Your task to perform on an android device: turn on the 24-hour format for clock Image 0: 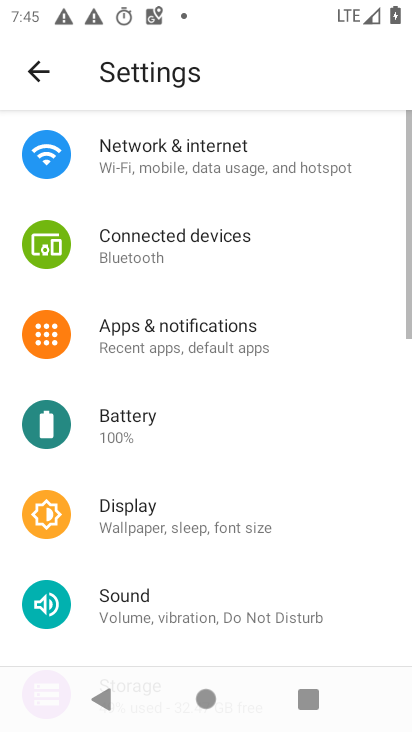
Step 0: press home button
Your task to perform on an android device: turn on the 24-hour format for clock Image 1: 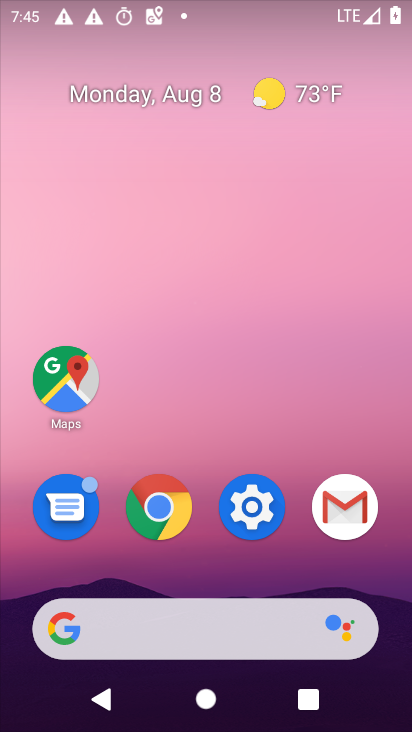
Step 1: drag from (290, 613) to (240, 240)
Your task to perform on an android device: turn on the 24-hour format for clock Image 2: 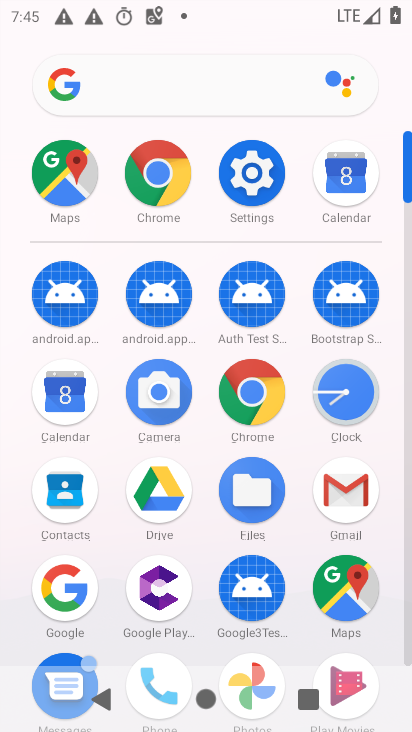
Step 2: click (342, 416)
Your task to perform on an android device: turn on the 24-hour format for clock Image 3: 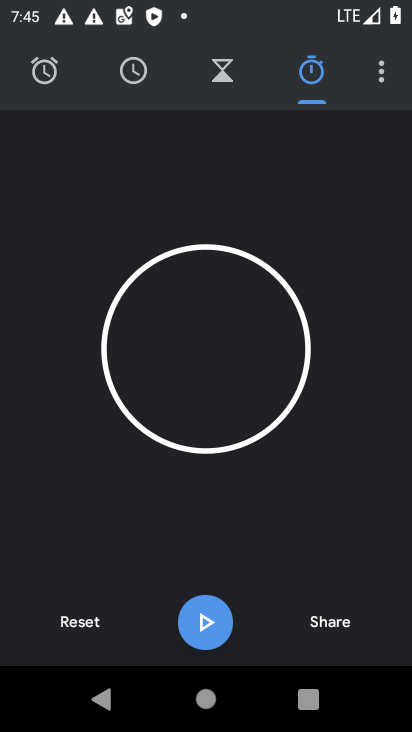
Step 3: click (382, 89)
Your task to perform on an android device: turn on the 24-hour format for clock Image 4: 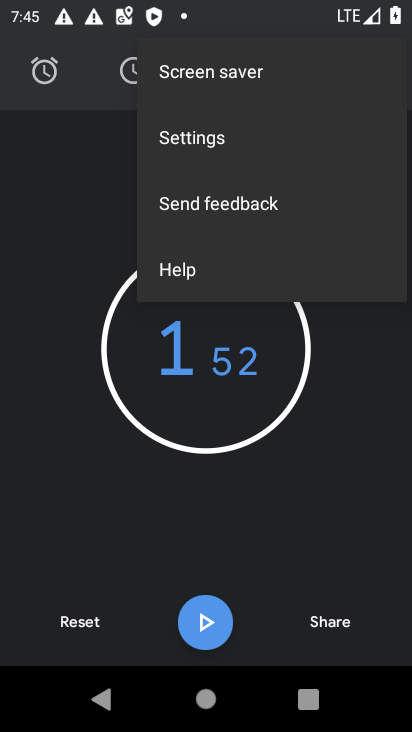
Step 4: click (228, 147)
Your task to perform on an android device: turn on the 24-hour format for clock Image 5: 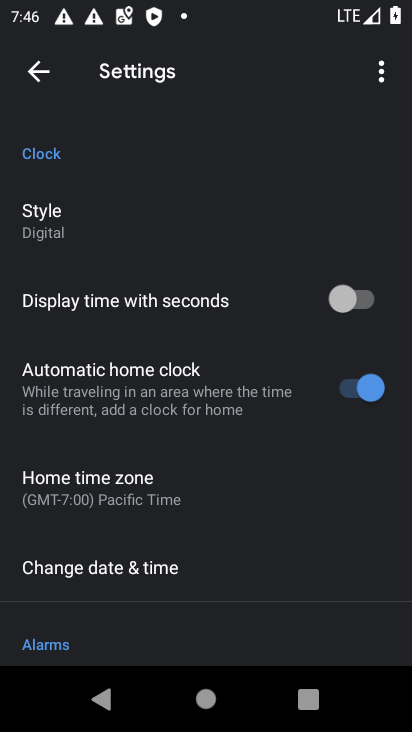
Step 5: click (97, 564)
Your task to perform on an android device: turn on the 24-hour format for clock Image 6: 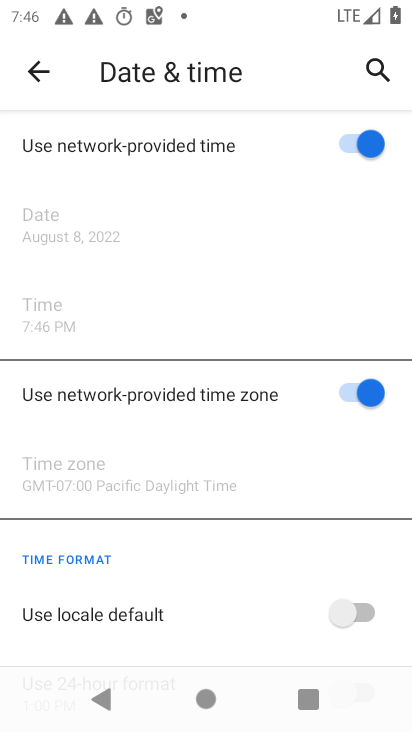
Step 6: drag from (189, 567) to (155, 298)
Your task to perform on an android device: turn on the 24-hour format for clock Image 7: 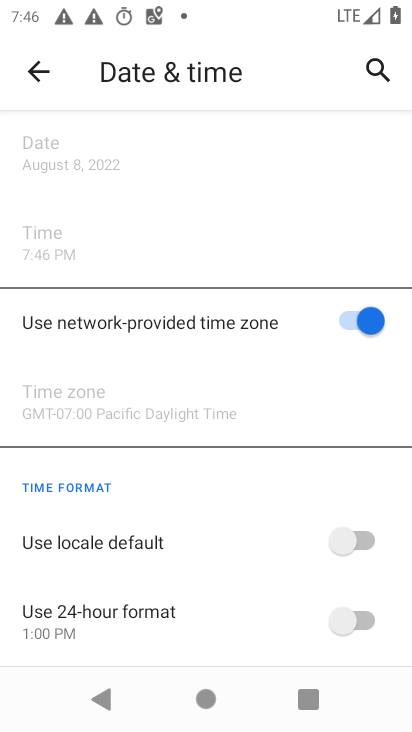
Step 7: click (372, 615)
Your task to perform on an android device: turn on the 24-hour format for clock Image 8: 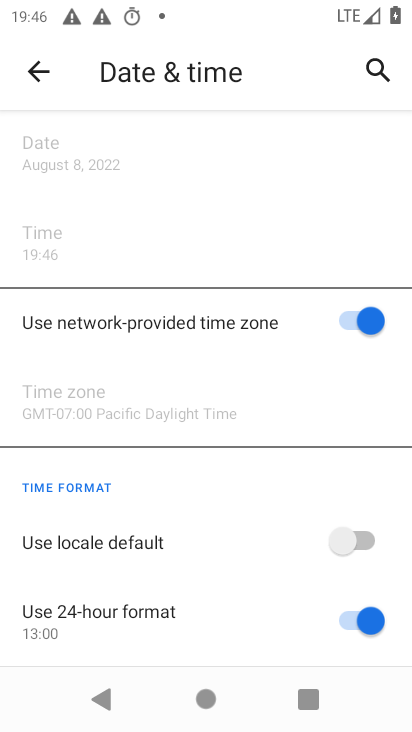
Step 8: task complete